Your task to perform on an android device: What is the recent news? Image 0: 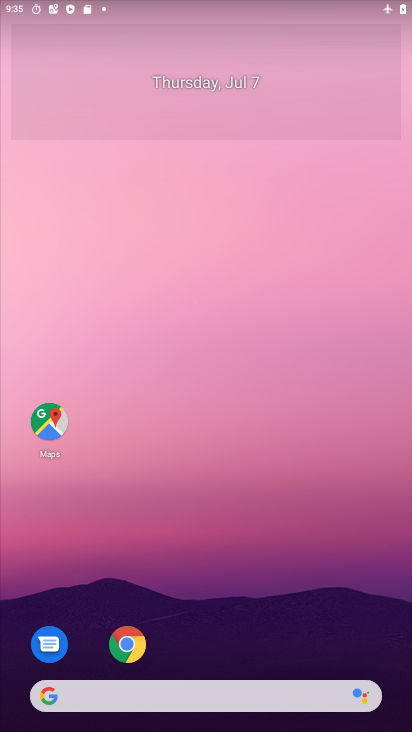
Step 0: click (129, 645)
Your task to perform on an android device: What is the recent news? Image 1: 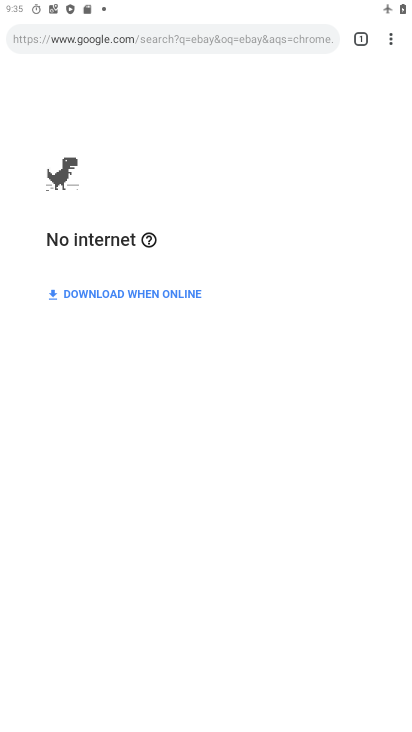
Step 1: click (215, 38)
Your task to perform on an android device: What is the recent news? Image 2: 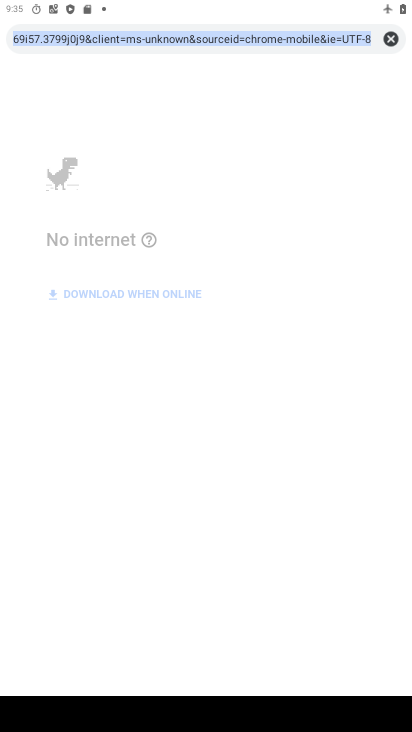
Step 2: type "news"
Your task to perform on an android device: What is the recent news? Image 3: 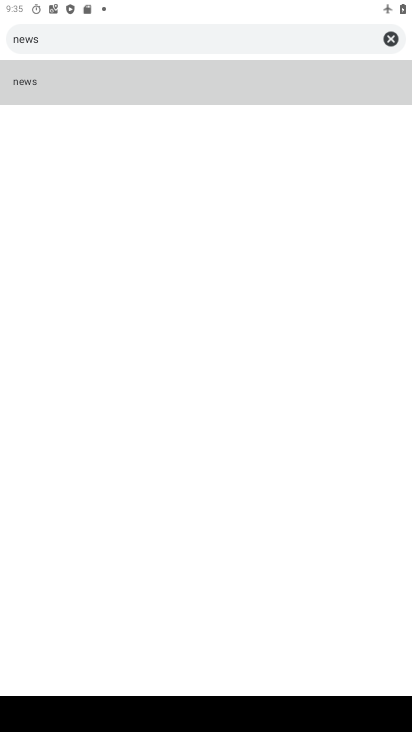
Step 3: click (24, 75)
Your task to perform on an android device: What is the recent news? Image 4: 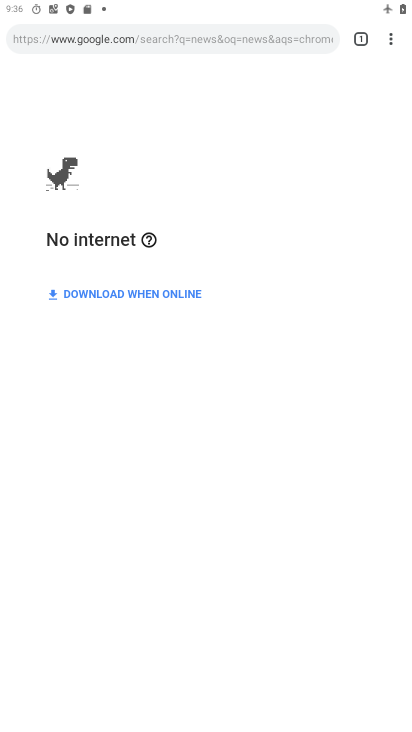
Step 4: task complete